Your task to perform on an android device: all mails in gmail Image 0: 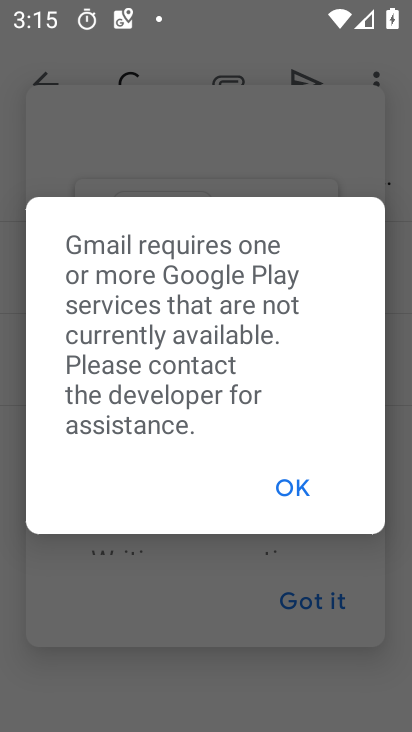
Step 0: press home button
Your task to perform on an android device: all mails in gmail Image 1: 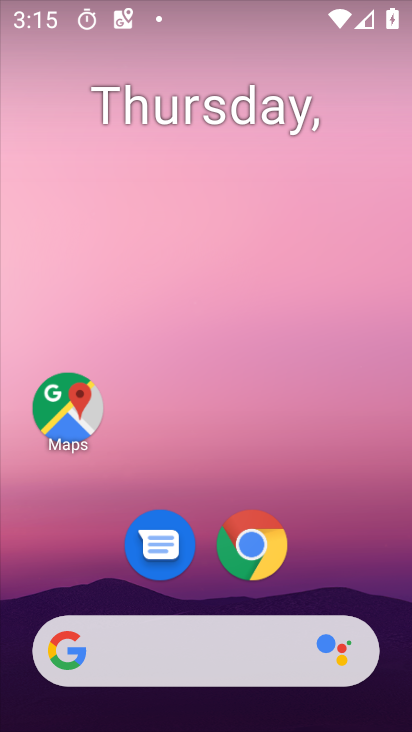
Step 1: drag from (220, 716) to (229, 149)
Your task to perform on an android device: all mails in gmail Image 2: 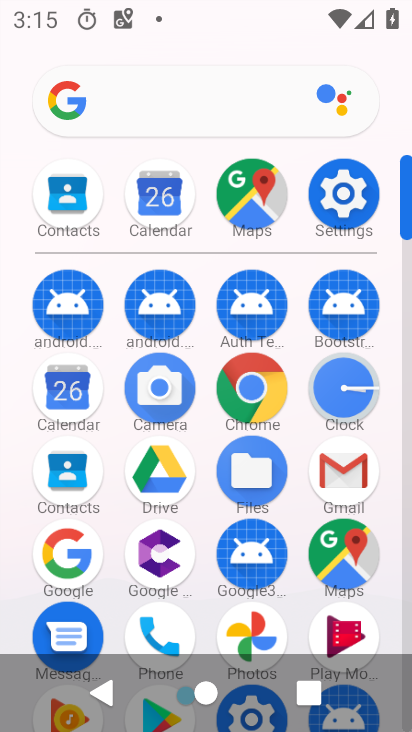
Step 2: click (342, 476)
Your task to perform on an android device: all mails in gmail Image 3: 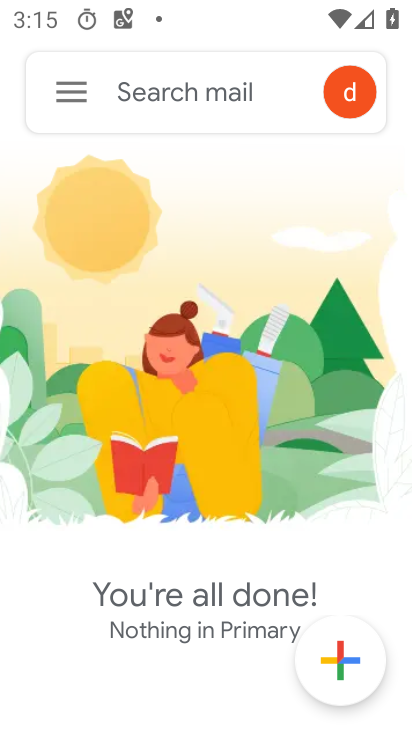
Step 3: click (65, 96)
Your task to perform on an android device: all mails in gmail Image 4: 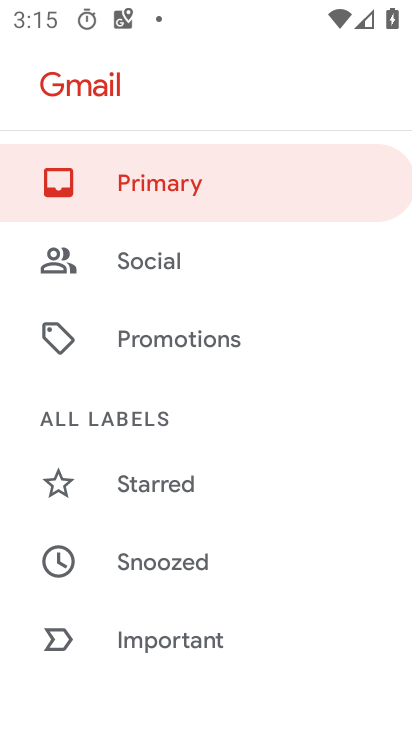
Step 4: drag from (157, 609) to (165, 234)
Your task to perform on an android device: all mails in gmail Image 5: 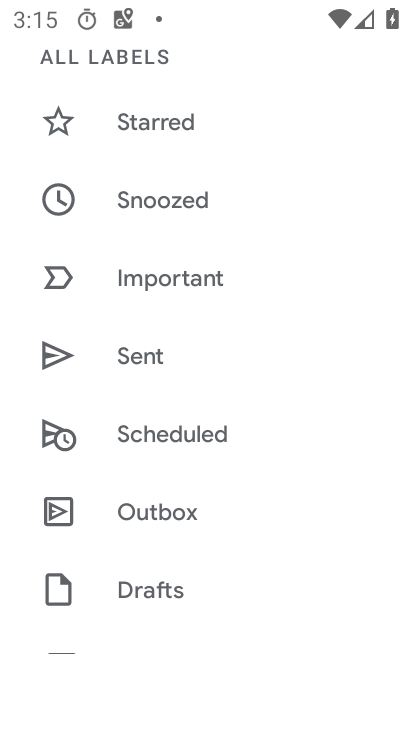
Step 5: drag from (143, 591) to (158, 310)
Your task to perform on an android device: all mails in gmail Image 6: 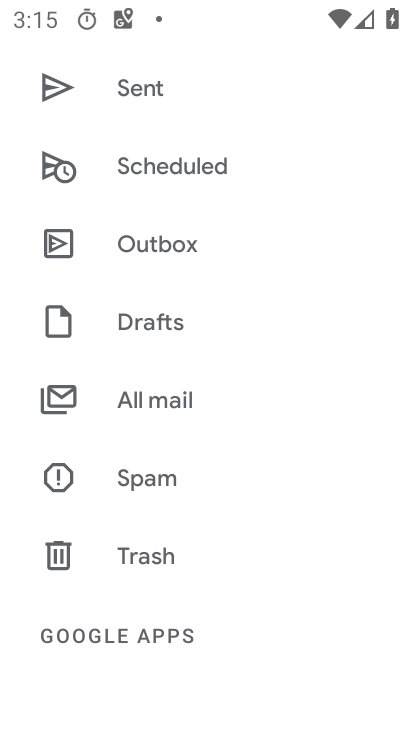
Step 6: click (153, 400)
Your task to perform on an android device: all mails in gmail Image 7: 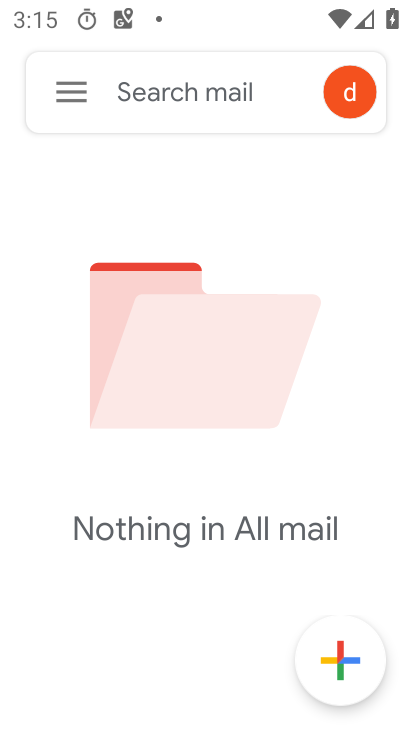
Step 7: task complete